Your task to perform on an android device: Go to Amazon Image 0: 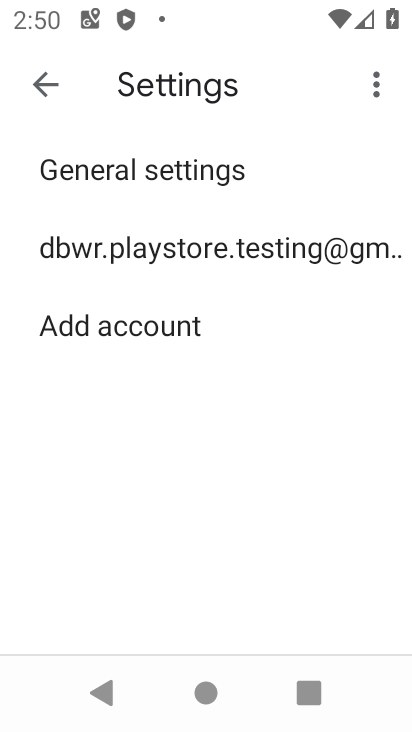
Step 0: press home button
Your task to perform on an android device: Go to Amazon Image 1: 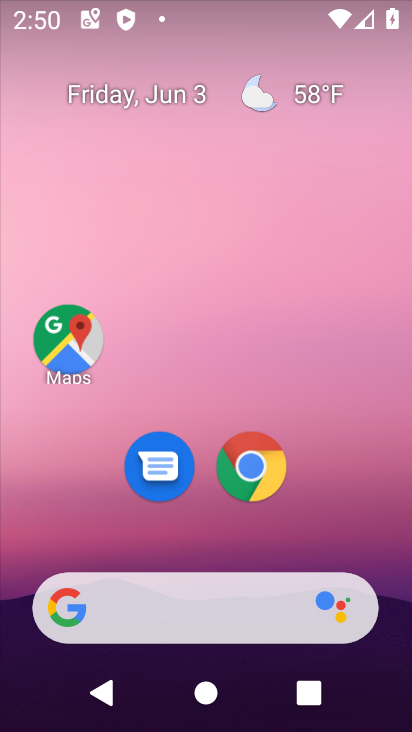
Step 1: click (251, 461)
Your task to perform on an android device: Go to Amazon Image 2: 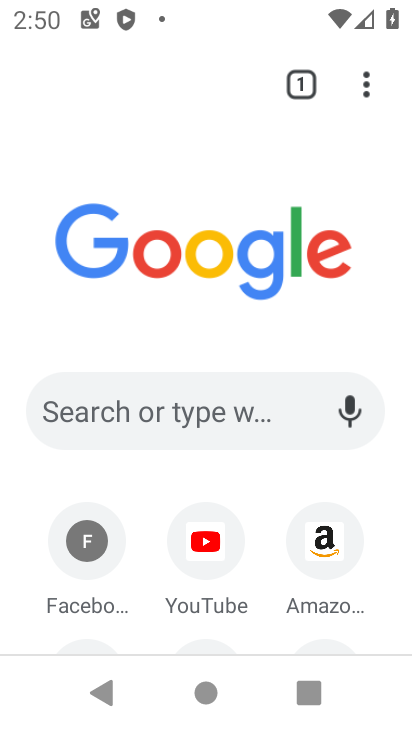
Step 2: click (321, 547)
Your task to perform on an android device: Go to Amazon Image 3: 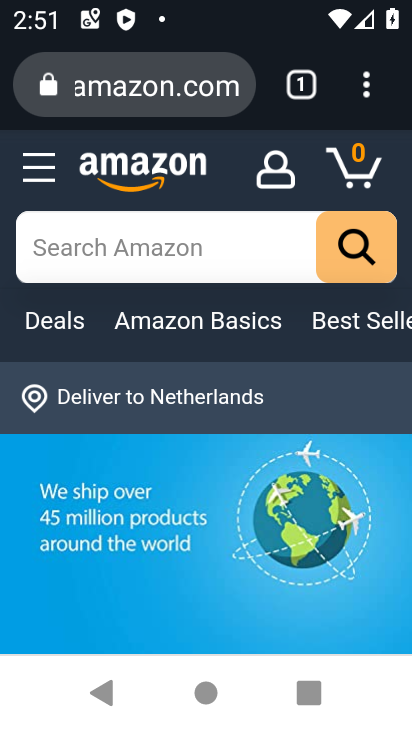
Step 3: task complete